Your task to perform on an android device: delete a single message in the gmail app Image 0: 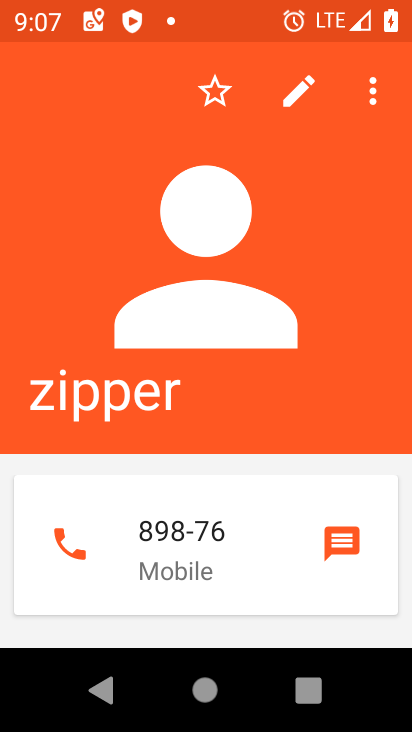
Step 0: press home button
Your task to perform on an android device: delete a single message in the gmail app Image 1: 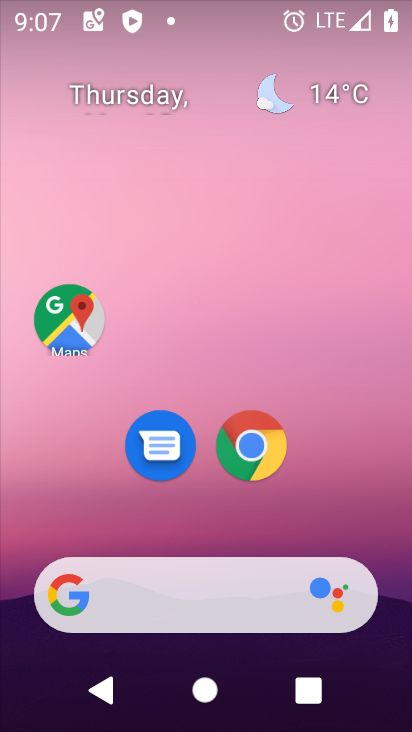
Step 1: drag from (241, 724) to (272, 147)
Your task to perform on an android device: delete a single message in the gmail app Image 2: 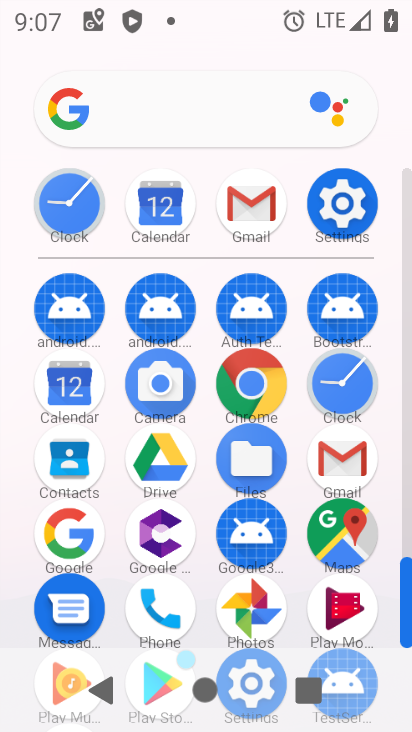
Step 2: click (340, 461)
Your task to perform on an android device: delete a single message in the gmail app Image 3: 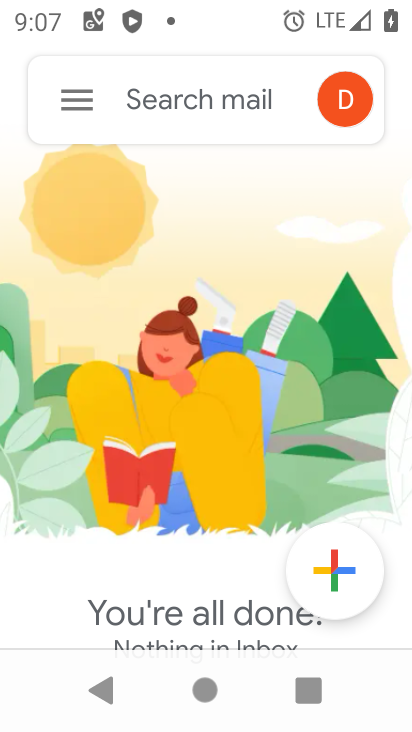
Step 3: task complete